Your task to perform on an android device: Turn off the flashlight Image 0: 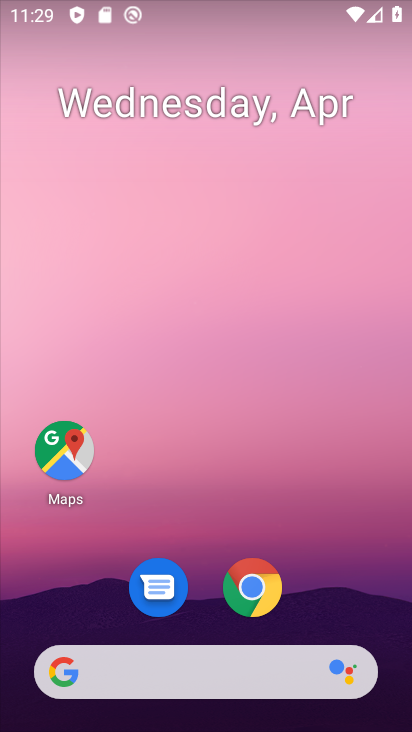
Step 0: drag from (321, 0) to (204, 636)
Your task to perform on an android device: Turn off the flashlight Image 1: 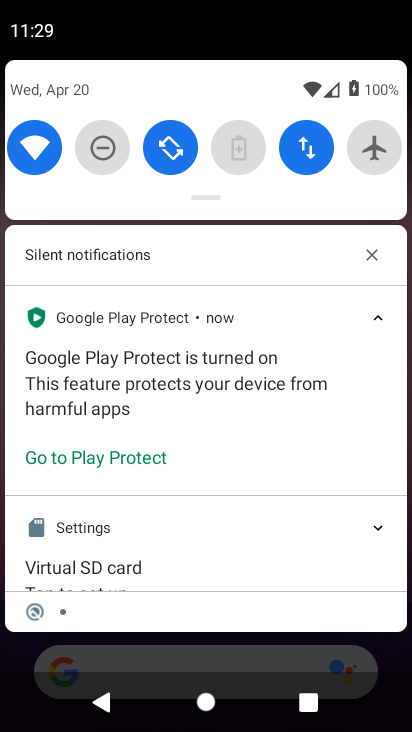
Step 1: task complete